Your task to perform on an android device: Search for the best pizza restaurants on Maps Image 0: 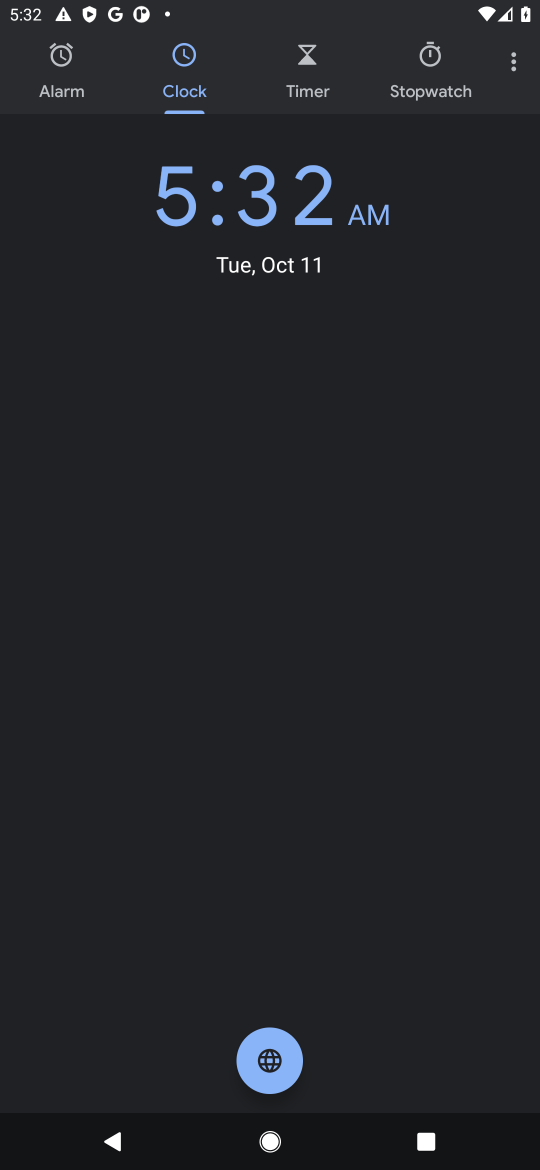
Step 0: click (309, 646)
Your task to perform on an android device: Search for the best pizza restaurants on Maps Image 1: 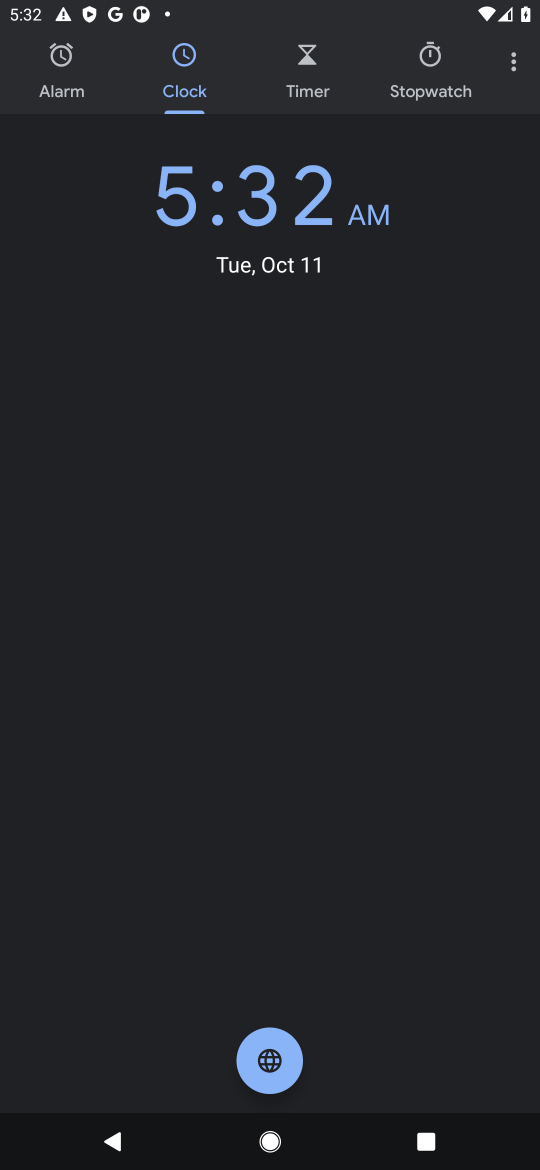
Step 1: press home button
Your task to perform on an android device: Search for the best pizza restaurants on Maps Image 2: 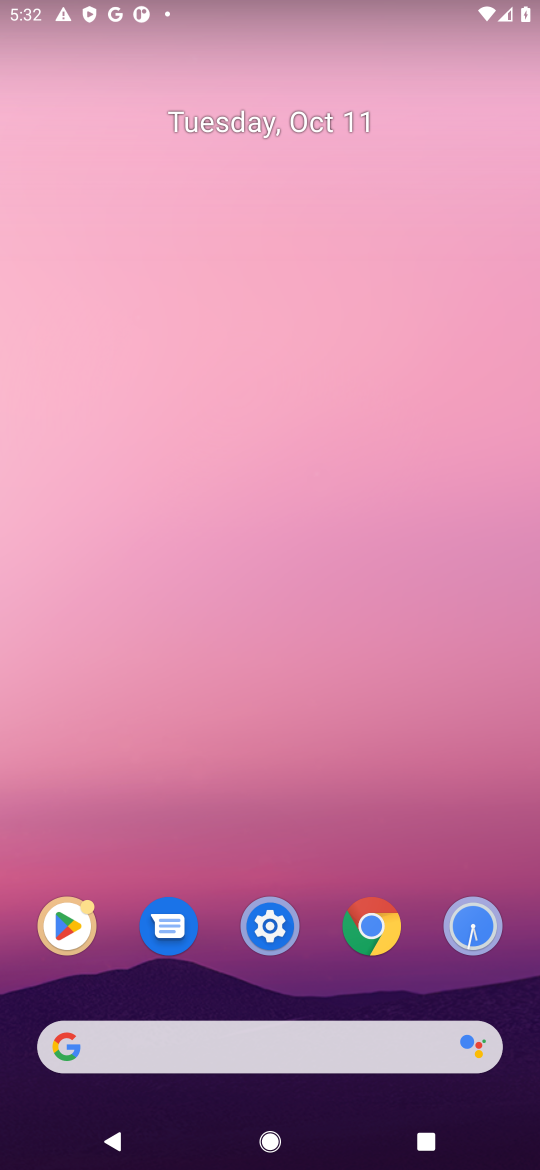
Step 2: drag from (251, 695) to (128, 109)
Your task to perform on an android device: Search for the best pizza restaurants on Maps Image 3: 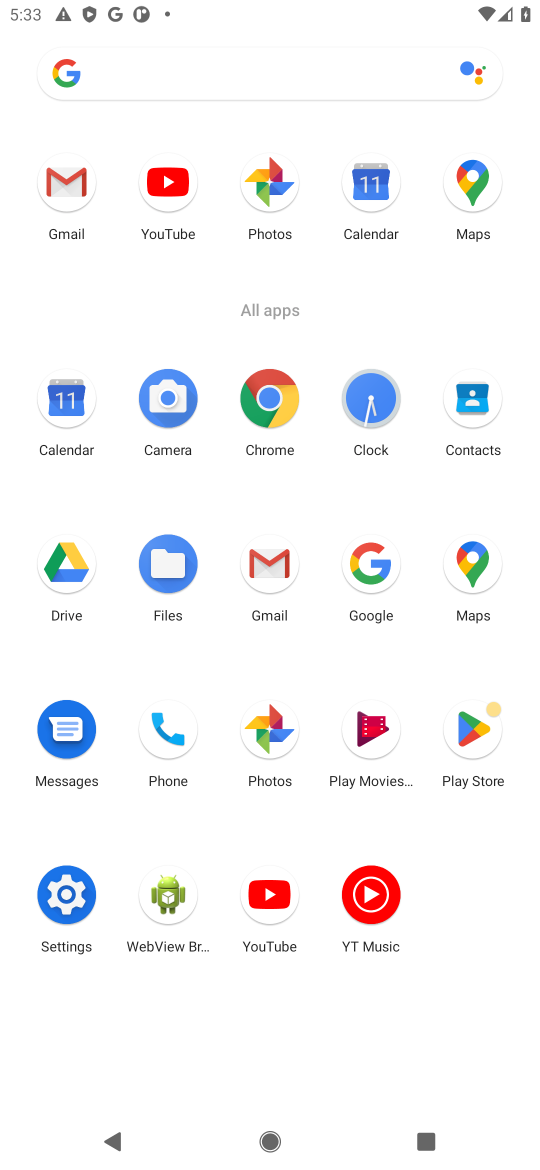
Step 3: click (481, 180)
Your task to perform on an android device: Search for the best pizza restaurants on Maps Image 4: 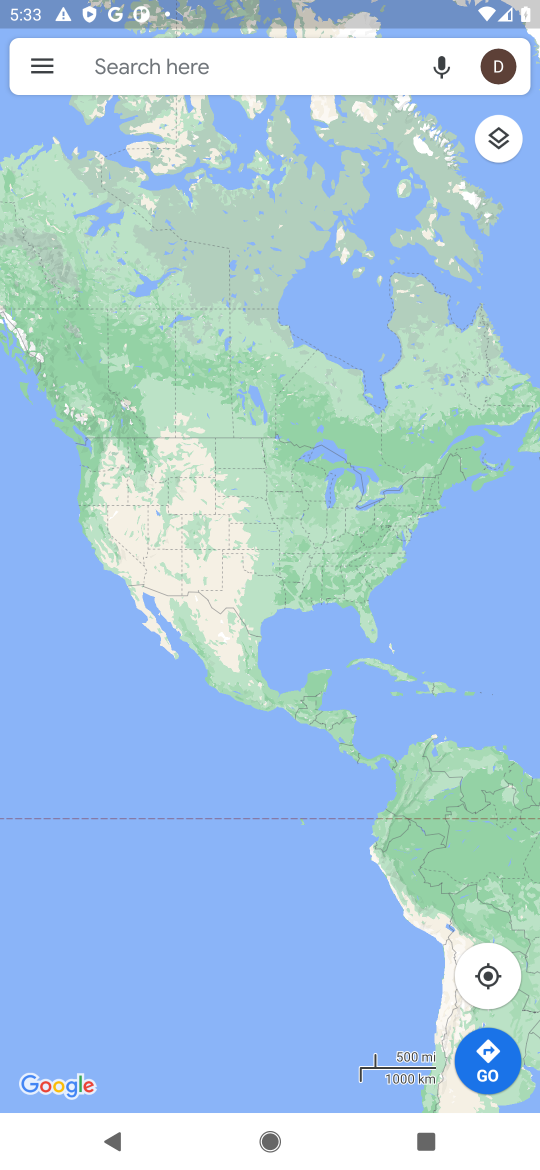
Step 4: click (187, 61)
Your task to perform on an android device: Search for the best pizza restaurants on Maps Image 5: 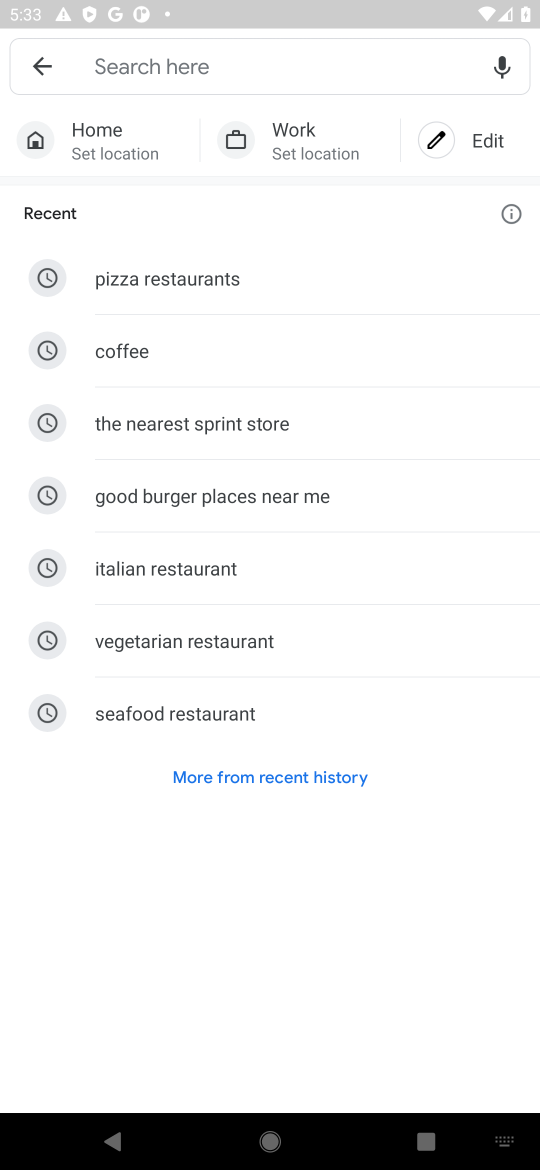
Step 5: click (143, 283)
Your task to perform on an android device: Search for the best pizza restaurants on Maps Image 6: 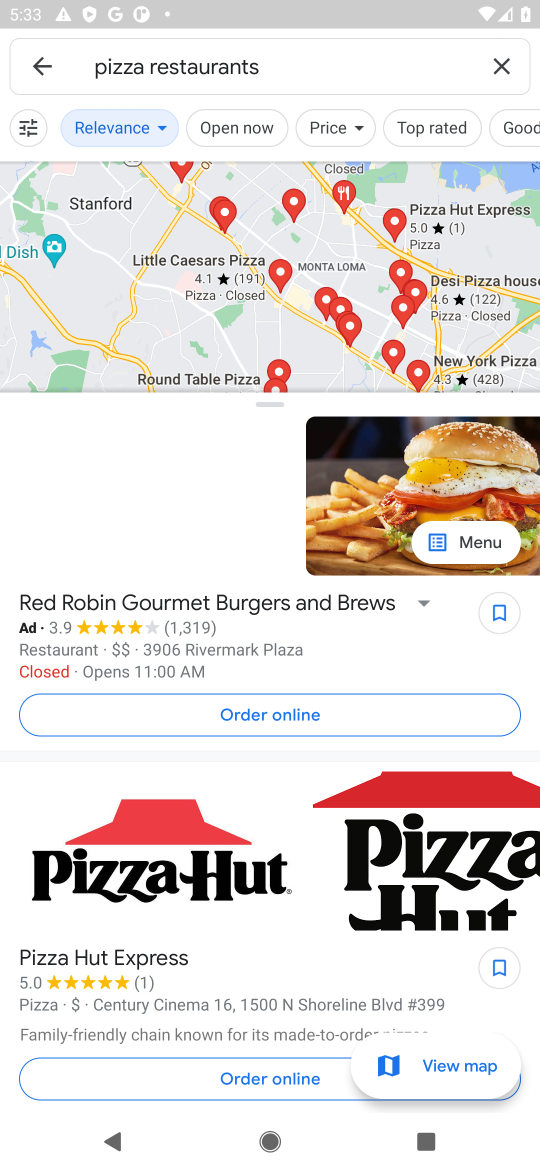
Step 6: task complete